Your task to perform on an android device: open app "Google Pay: Save, Pay, Manage" (install if not already installed) Image 0: 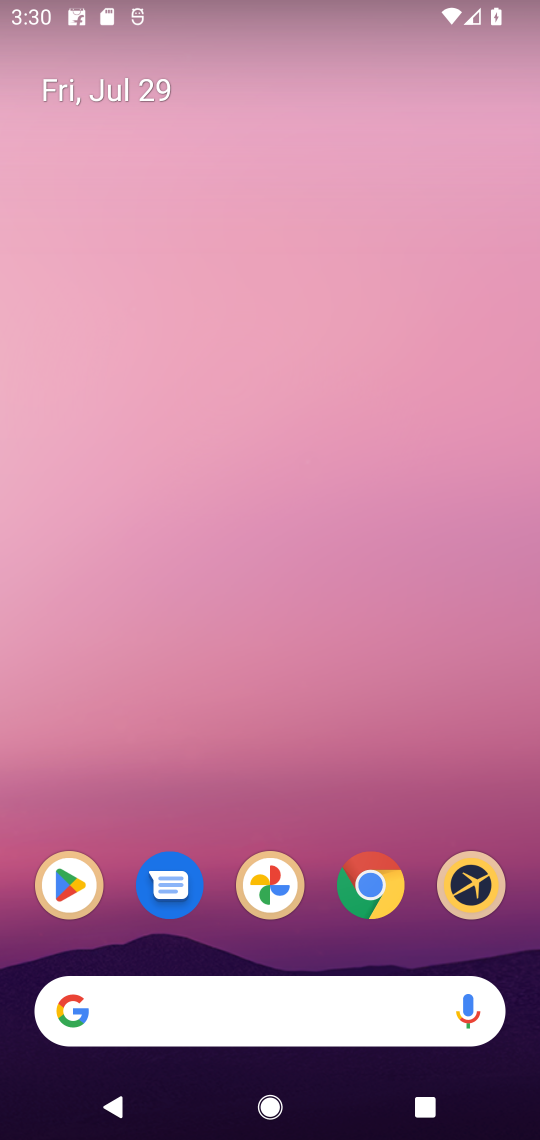
Step 0: click (86, 883)
Your task to perform on an android device: open app "Google Pay: Save, Pay, Manage" (install if not already installed) Image 1: 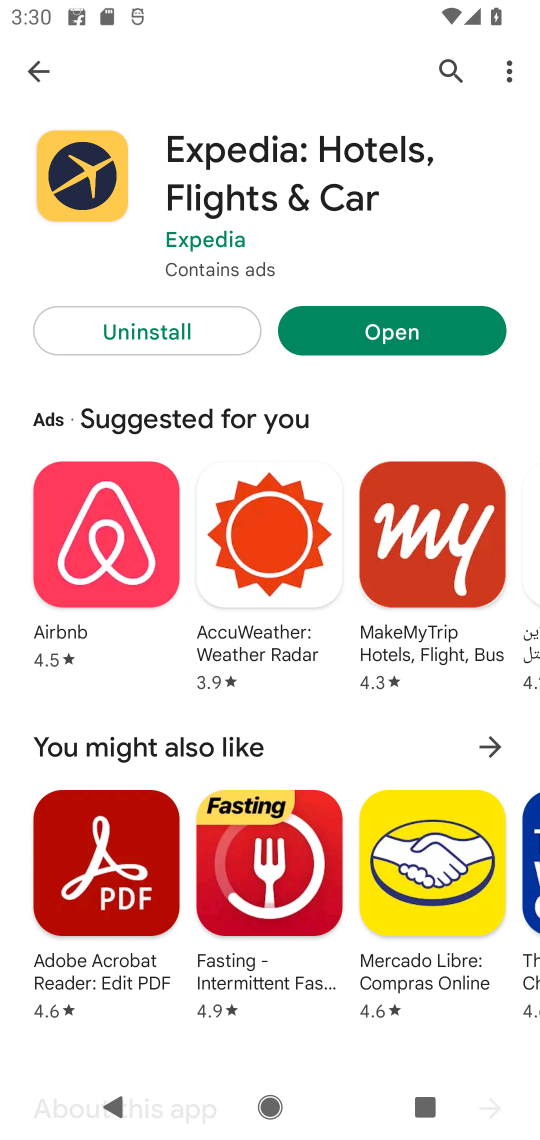
Step 1: click (466, 63)
Your task to perform on an android device: open app "Google Pay: Save, Pay, Manage" (install if not already installed) Image 2: 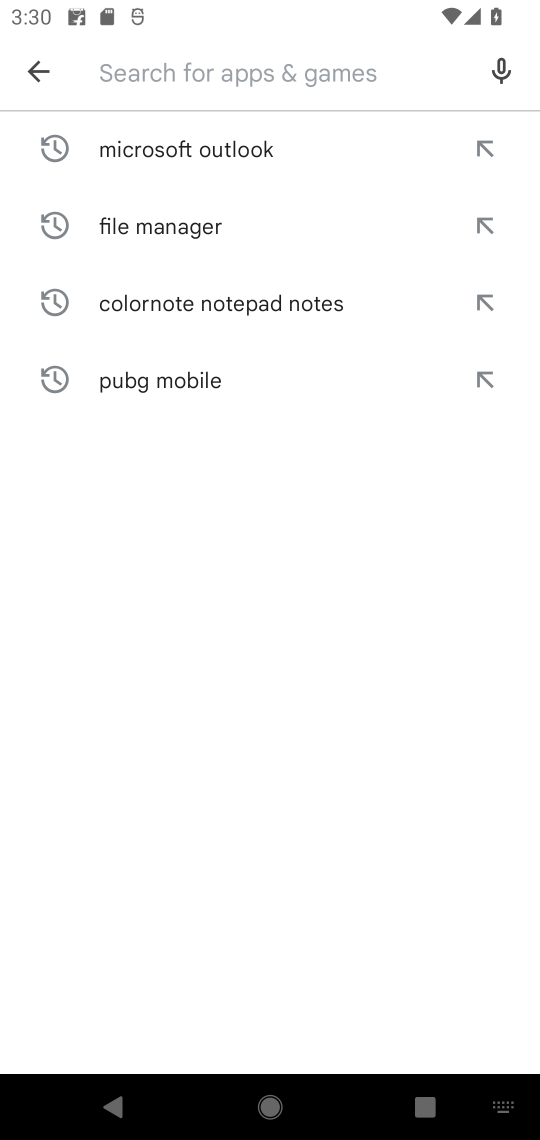
Step 2: type "Google Pay: Save, Pay, Manage"
Your task to perform on an android device: open app "Google Pay: Save, Pay, Manage" (install if not already installed) Image 3: 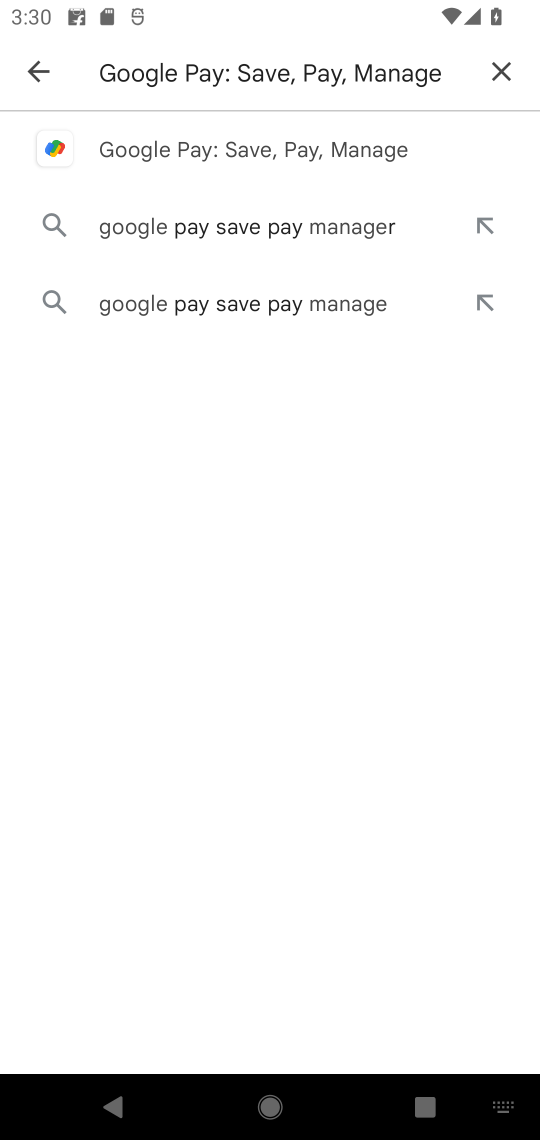
Step 3: click (390, 149)
Your task to perform on an android device: open app "Google Pay: Save, Pay, Manage" (install if not already installed) Image 4: 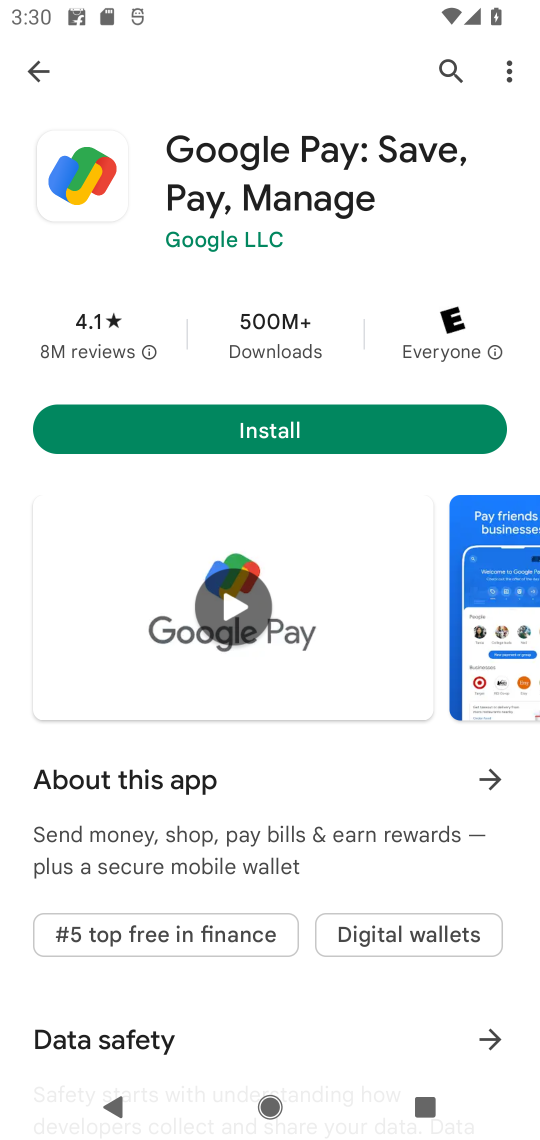
Step 4: click (390, 447)
Your task to perform on an android device: open app "Google Pay: Save, Pay, Manage" (install if not already installed) Image 5: 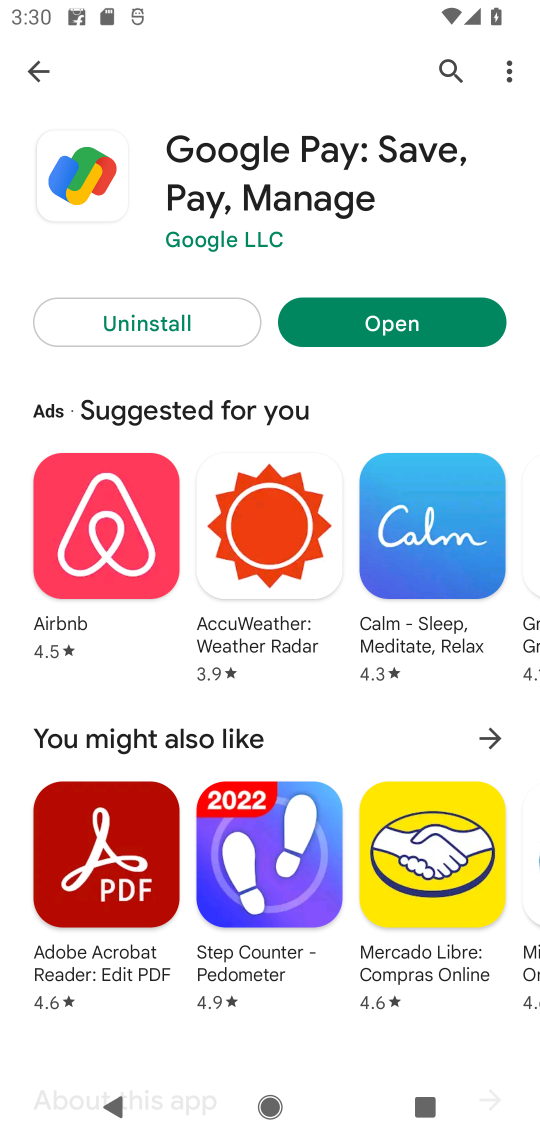
Step 5: click (404, 335)
Your task to perform on an android device: open app "Google Pay: Save, Pay, Manage" (install if not already installed) Image 6: 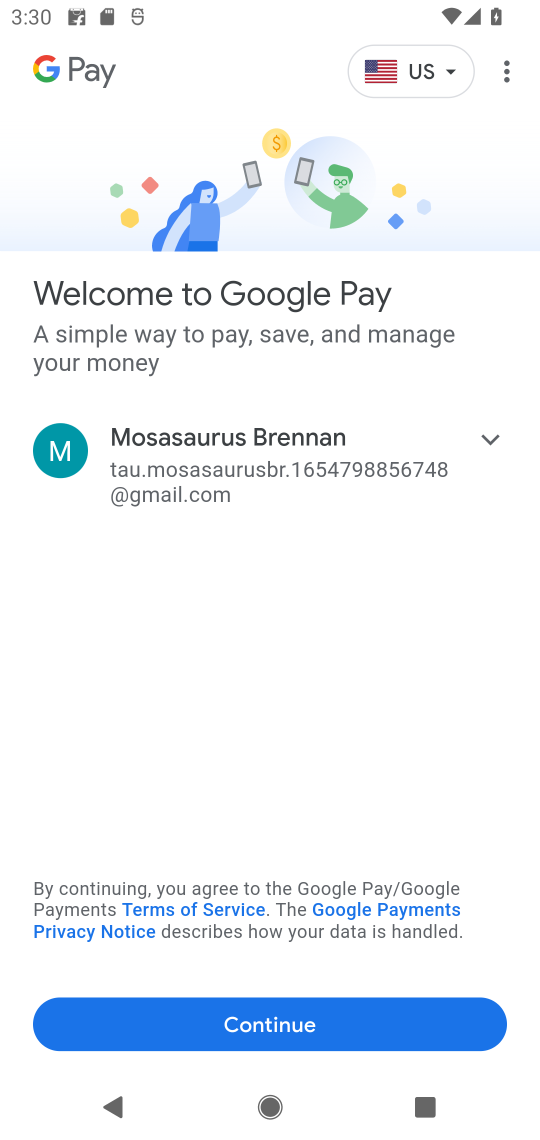
Step 6: task complete